Your task to perform on an android device: Empty the shopping cart on walmart. Add "dell alienware" to the cart on walmart, then select checkout. Image 0: 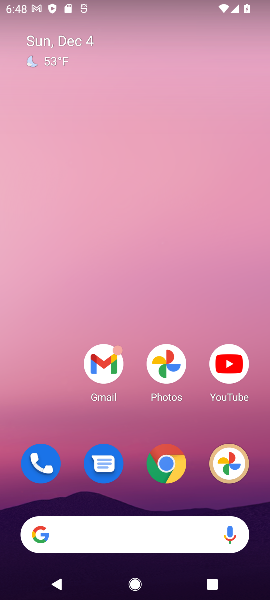
Step 0: click (140, 546)
Your task to perform on an android device: Empty the shopping cart on walmart. Add "dell alienware" to the cart on walmart, then select checkout. Image 1: 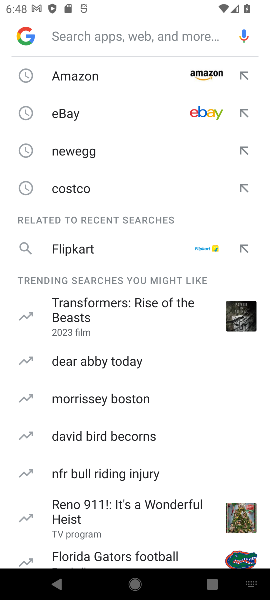
Step 1: type "walmart"
Your task to perform on an android device: Empty the shopping cart on walmart. Add "dell alienware" to the cart on walmart, then select checkout. Image 2: 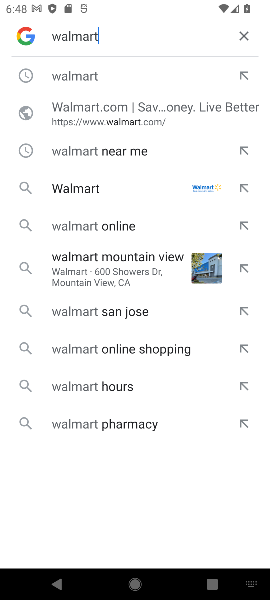
Step 2: click (80, 77)
Your task to perform on an android device: Empty the shopping cart on walmart. Add "dell alienware" to the cart on walmart, then select checkout. Image 3: 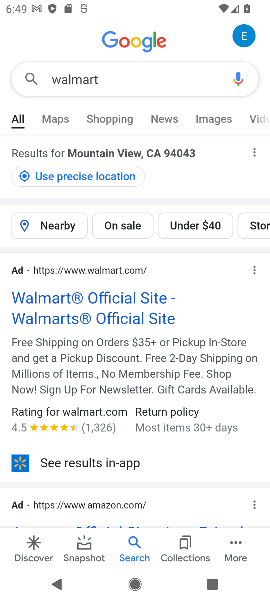
Step 3: click (72, 298)
Your task to perform on an android device: Empty the shopping cart on walmart. Add "dell alienware" to the cart on walmart, then select checkout. Image 4: 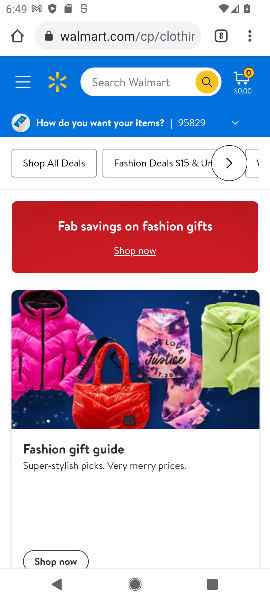
Step 4: click (121, 80)
Your task to perform on an android device: Empty the shopping cart on walmart. Add "dell alienware" to the cart on walmart, then select checkout. Image 5: 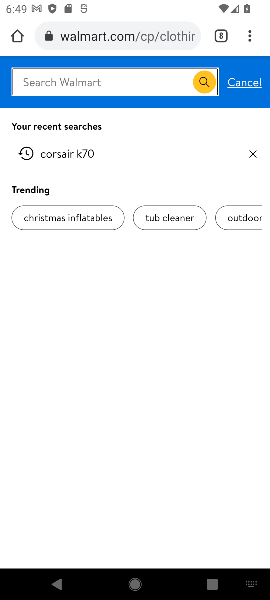
Step 5: type "dell alienware"
Your task to perform on an android device: Empty the shopping cart on walmart. Add "dell alienware" to the cart on walmart, then select checkout. Image 6: 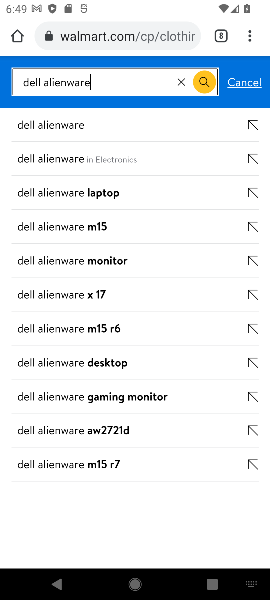
Step 6: click (53, 120)
Your task to perform on an android device: Empty the shopping cart on walmart. Add "dell alienware" to the cart on walmart, then select checkout. Image 7: 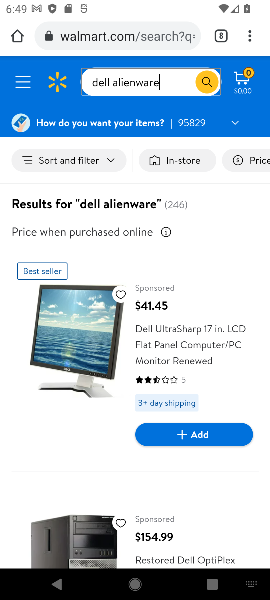
Step 7: click (196, 439)
Your task to perform on an android device: Empty the shopping cart on walmart. Add "dell alienware" to the cart on walmart, then select checkout. Image 8: 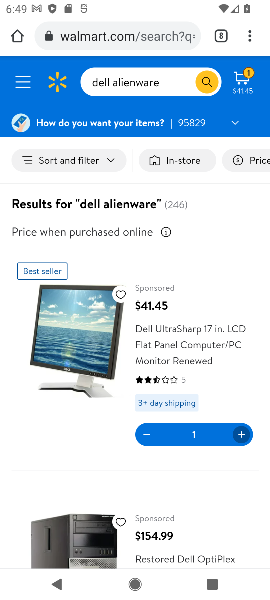
Step 8: task complete